Your task to perform on an android device: open sync settings in chrome Image 0: 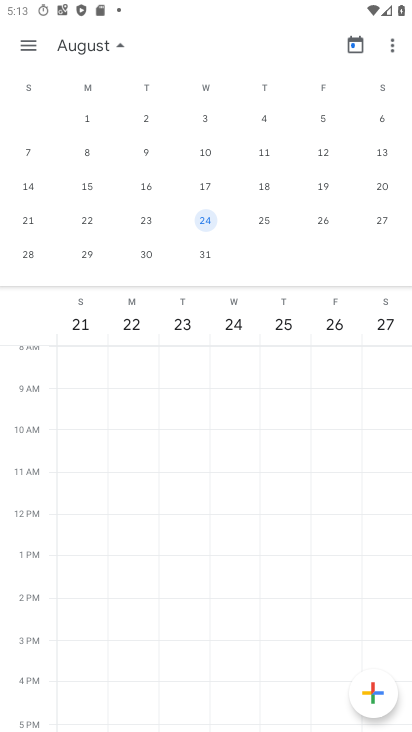
Step 0: press home button
Your task to perform on an android device: open sync settings in chrome Image 1: 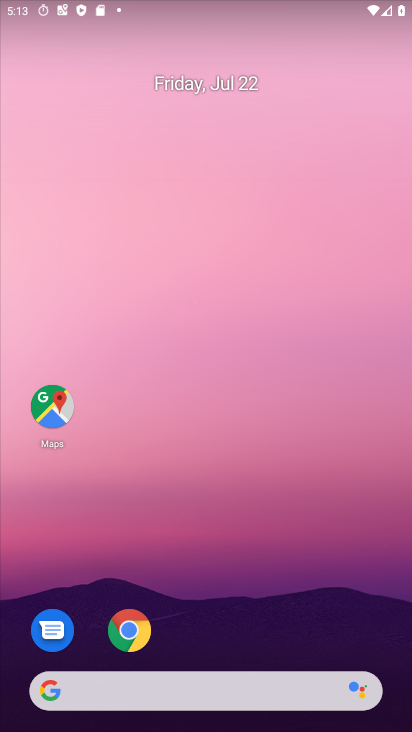
Step 1: drag from (296, 667) to (314, 107)
Your task to perform on an android device: open sync settings in chrome Image 2: 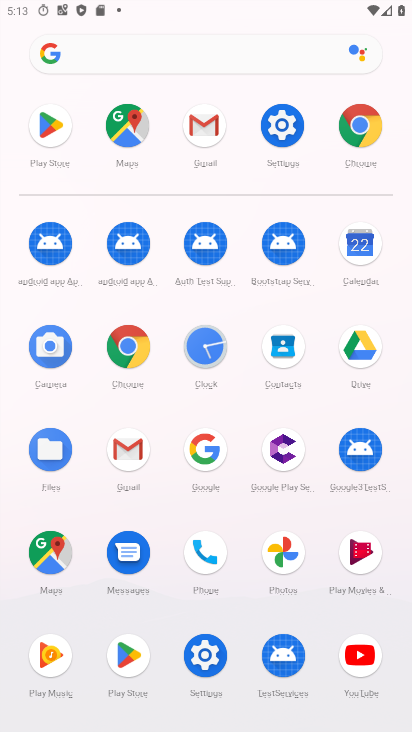
Step 2: click (126, 341)
Your task to perform on an android device: open sync settings in chrome Image 3: 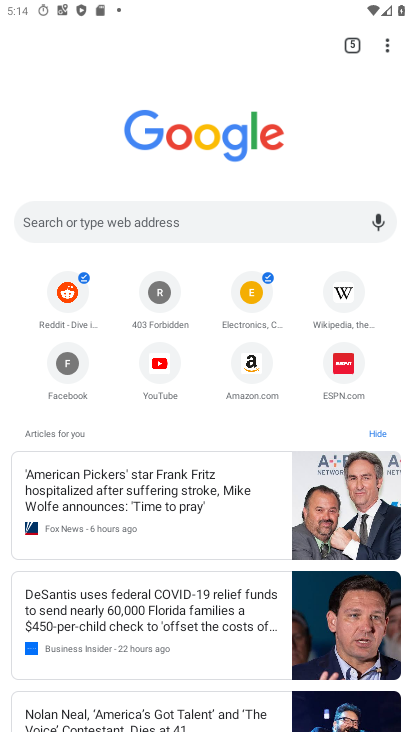
Step 3: click (388, 41)
Your task to perform on an android device: open sync settings in chrome Image 4: 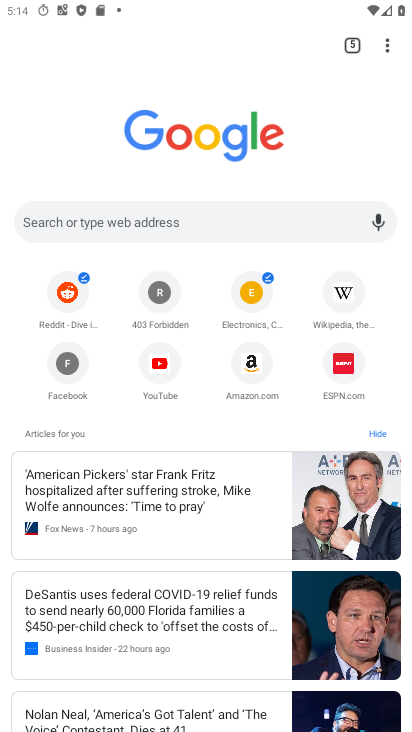
Step 4: drag from (390, 40) to (241, 381)
Your task to perform on an android device: open sync settings in chrome Image 5: 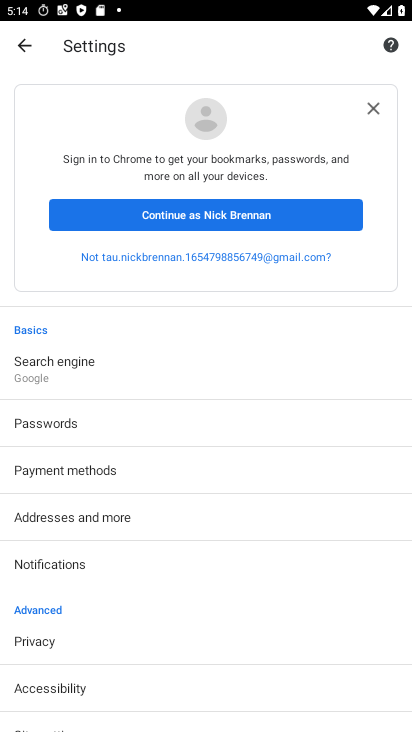
Step 5: drag from (282, 683) to (203, 264)
Your task to perform on an android device: open sync settings in chrome Image 6: 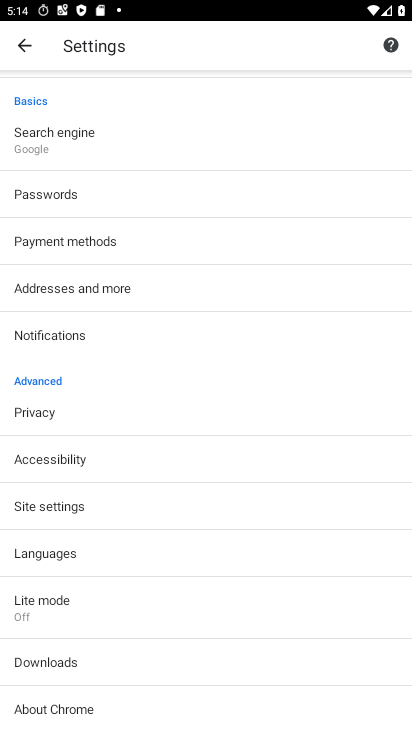
Step 6: click (102, 511)
Your task to perform on an android device: open sync settings in chrome Image 7: 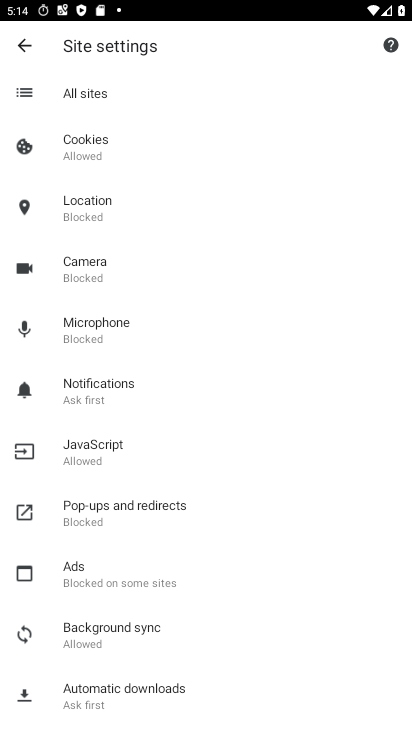
Step 7: click (150, 620)
Your task to perform on an android device: open sync settings in chrome Image 8: 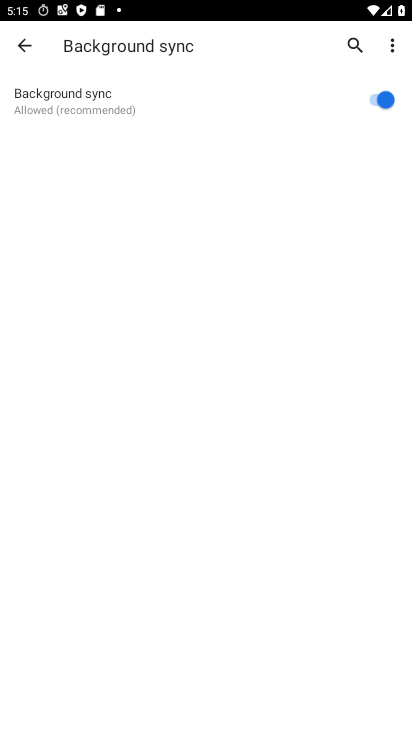
Step 8: task complete